Your task to perform on an android device: allow notifications from all sites in the chrome app Image 0: 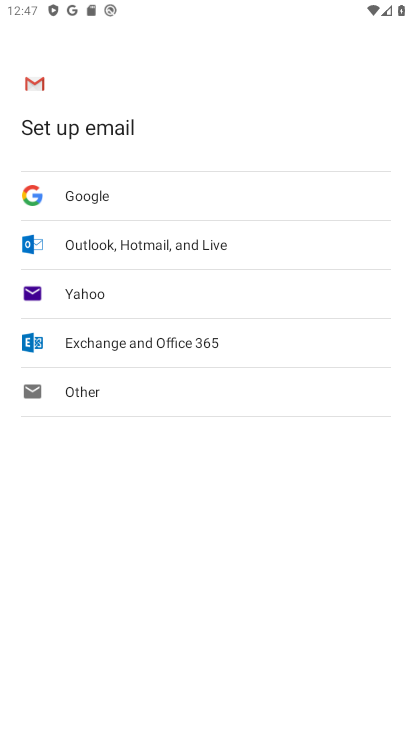
Step 0: press home button
Your task to perform on an android device: allow notifications from all sites in the chrome app Image 1: 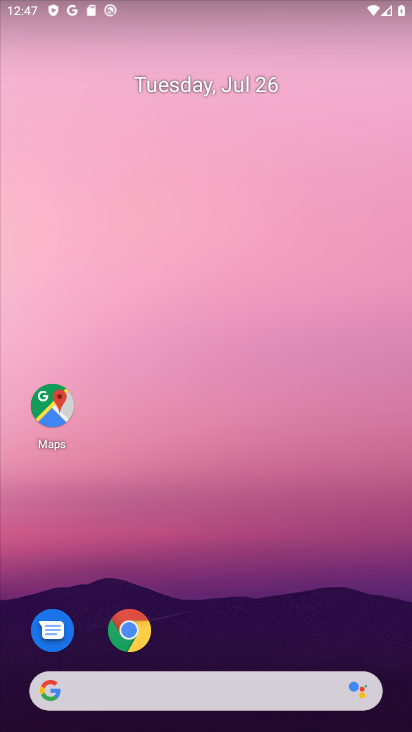
Step 1: drag from (250, 664) to (303, 0)
Your task to perform on an android device: allow notifications from all sites in the chrome app Image 2: 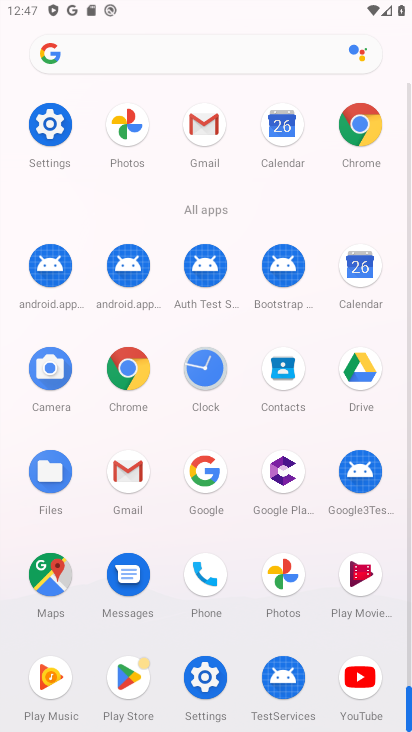
Step 2: click (373, 131)
Your task to perform on an android device: allow notifications from all sites in the chrome app Image 3: 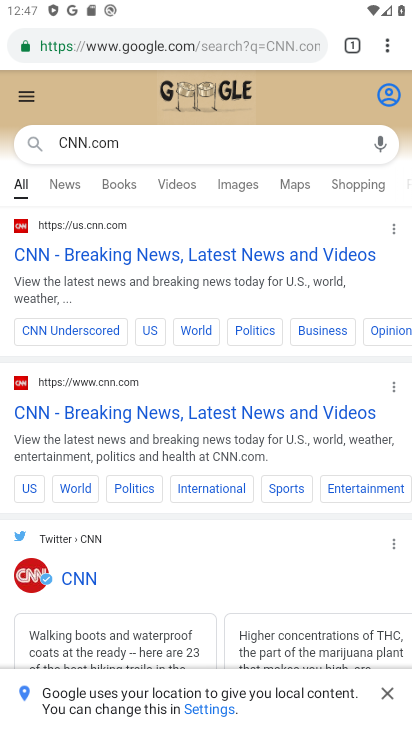
Step 3: drag from (384, 44) to (229, 494)
Your task to perform on an android device: allow notifications from all sites in the chrome app Image 4: 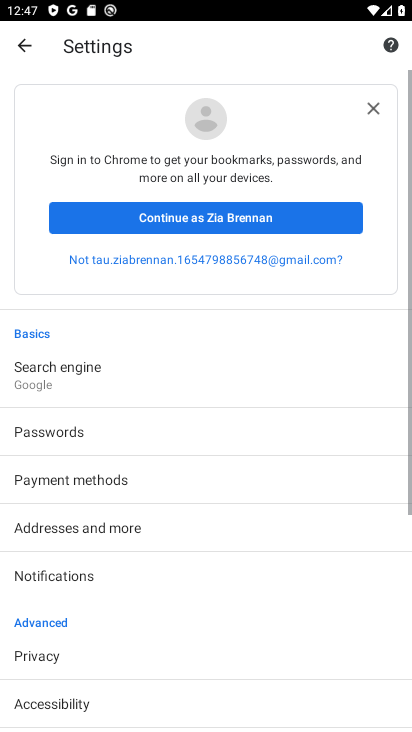
Step 4: drag from (135, 559) to (226, 90)
Your task to perform on an android device: allow notifications from all sites in the chrome app Image 5: 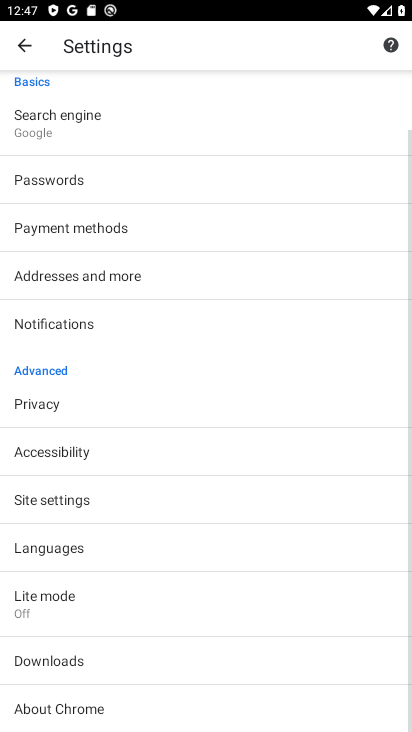
Step 5: click (53, 506)
Your task to perform on an android device: allow notifications from all sites in the chrome app Image 6: 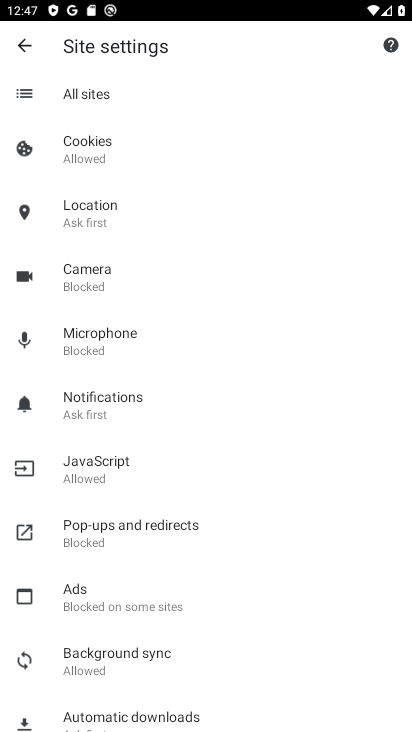
Step 6: drag from (153, 637) to (222, 139)
Your task to perform on an android device: allow notifications from all sites in the chrome app Image 7: 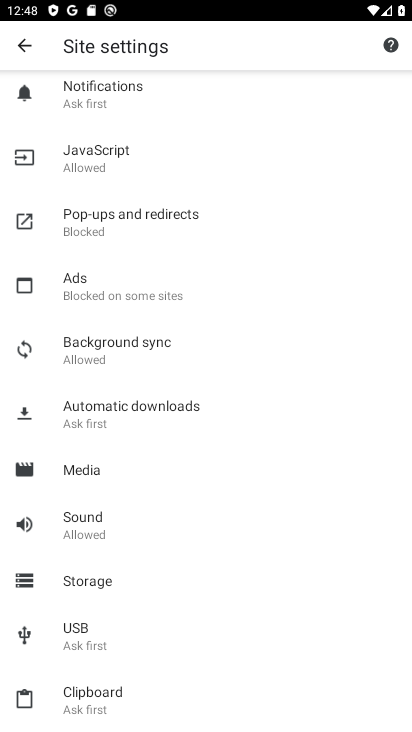
Step 7: drag from (150, 298) to (127, 693)
Your task to perform on an android device: allow notifications from all sites in the chrome app Image 8: 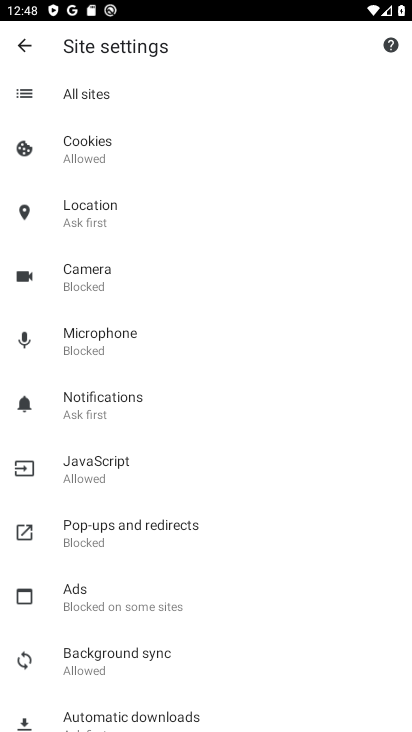
Step 8: click (85, 408)
Your task to perform on an android device: allow notifications from all sites in the chrome app Image 9: 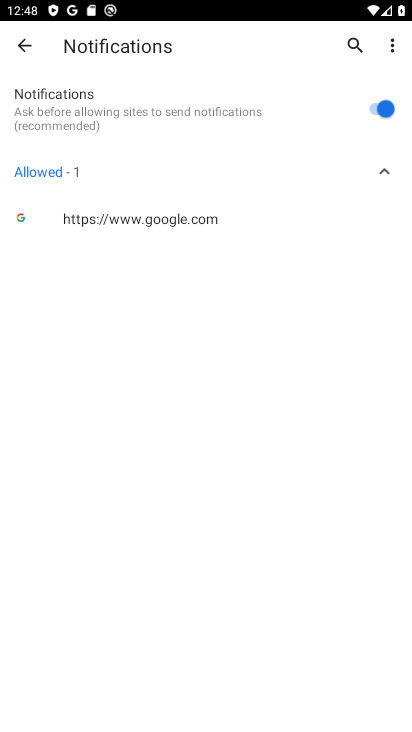
Step 9: task complete